Your task to perform on an android device: Check the settings for the Google Maps app Image 0: 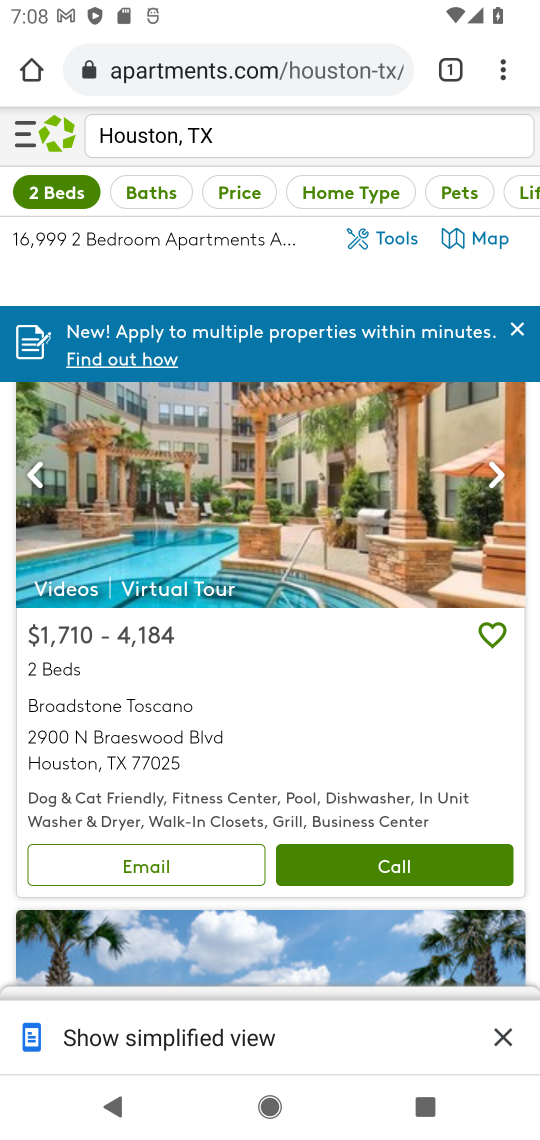
Step 0: task complete